Your task to perform on an android device: Open Reddit.com Image 0: 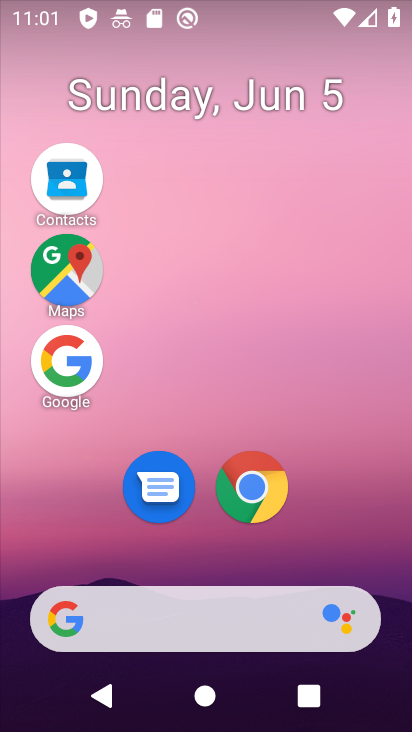
Step 0: drag from (244, 586) to (245, 253)
Your task to perform on an android device: Open Reddit.com Image 1: 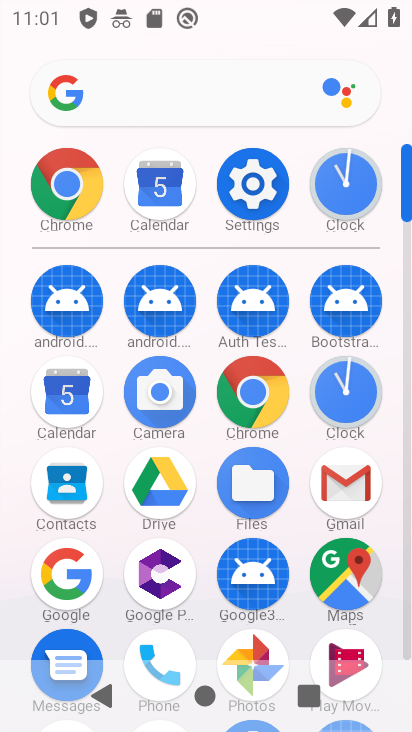
Step 1: click (75, 187)
Your task to perform on an android device: Open Reddit.com Image 2: 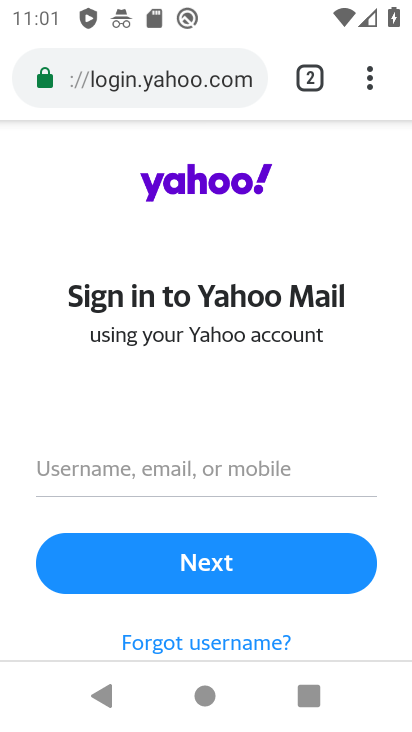
Step 2: click (234, 77)
Your task to perform on an android device: Open Reddit.com Image 3: 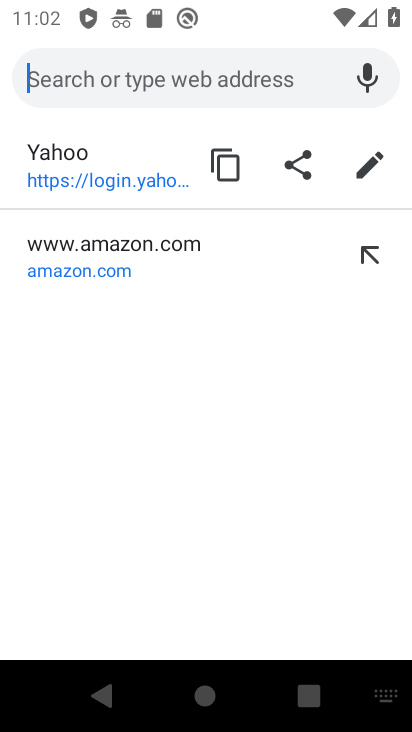
Step 3: type "reddit"
Your task to perform on an android device: Open Reddit.com Image 4: 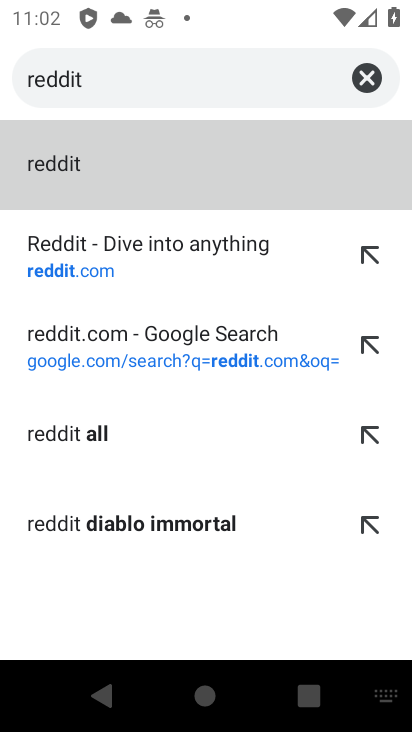
Step 4: click (217, 260)
Your task to perform on an android device: Open Reddit.com Image 5: 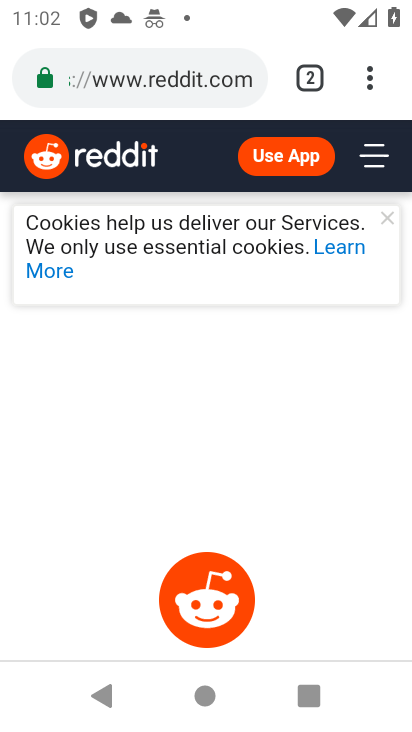
Step 5: task complete